Your task to perform on an android device: open the mobile data screen to see how much data has been used Image 0: 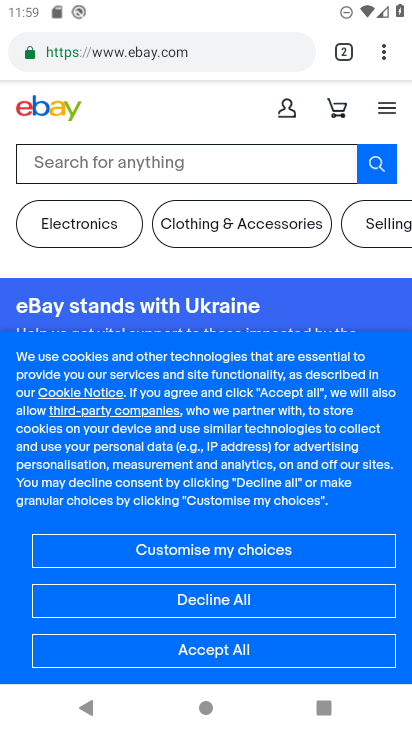
Step 0: click (390, 46)
Your task to perform on an android device: open the mobile data screen to see how much data has been used Image 1: 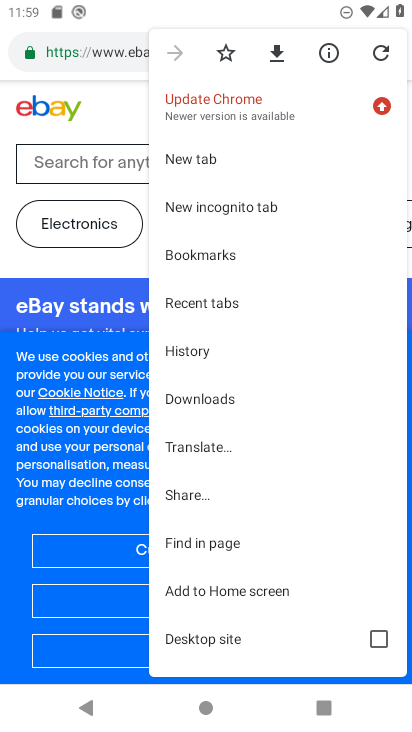
Step 1: drag from (142, 11) to (103, 731)
Your task to perform on an android device: open the mobile data screen to see how much data has been used Image 2: 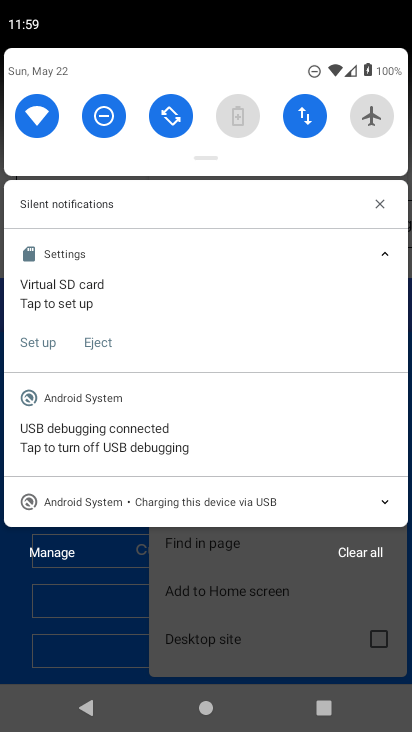
Step 2: click (308, 140)
Your task to perform on an android device: open the mobile data screen to see how much data has been used Image 3: 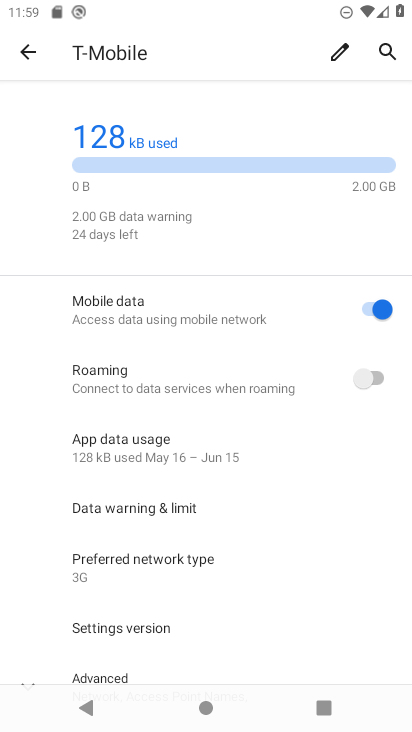
Step 3: task complete